Your task to perform on an android device: change the upload size in google photos Image 0: 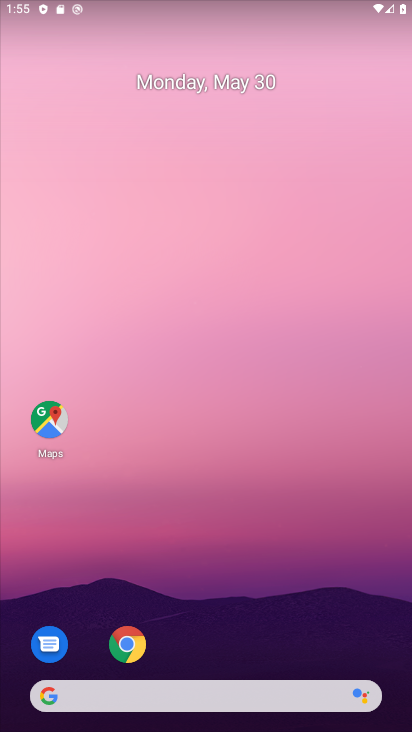
Step 0: drag from (232, 652) to (183, 228)
Your task to perform on an android device: change the upload size in google photos Image 1: 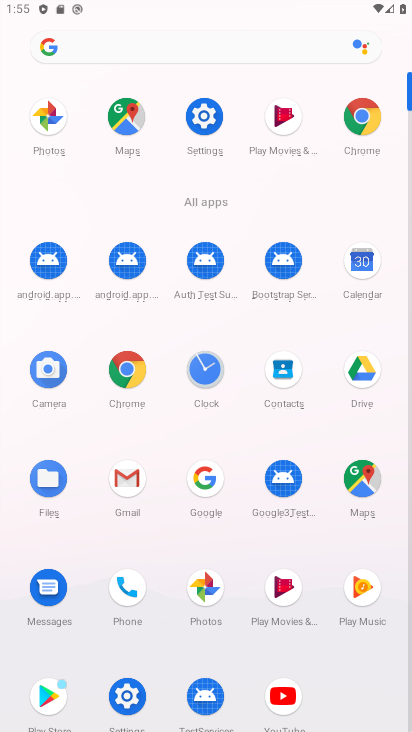
Step 1: click (202, 582)
Your task to perform on an android device: change the upload size in google photos Image 2: 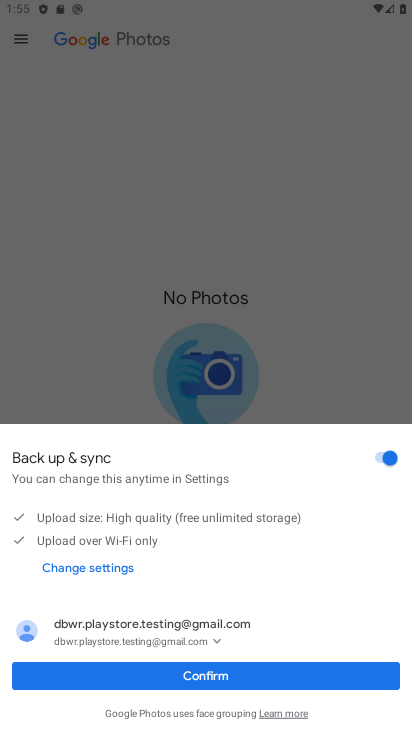
Step 2: click (195, 672)
Your task to perform on an android device: change the upload size in google photos Image 3: 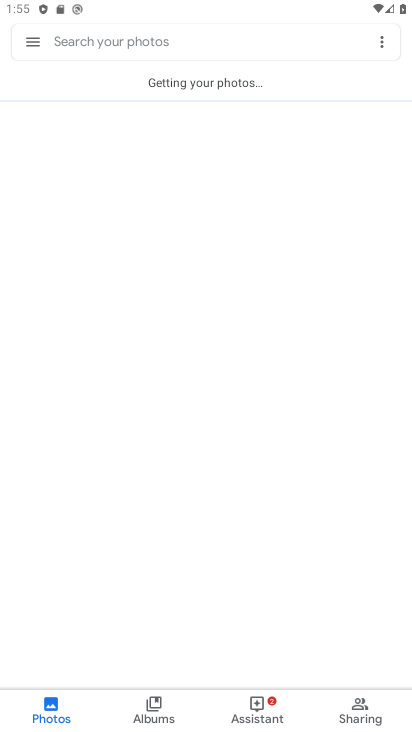
Step 3: click (32, 43)
Your task to perform on an android device: change the upload size in google photos Image 4: 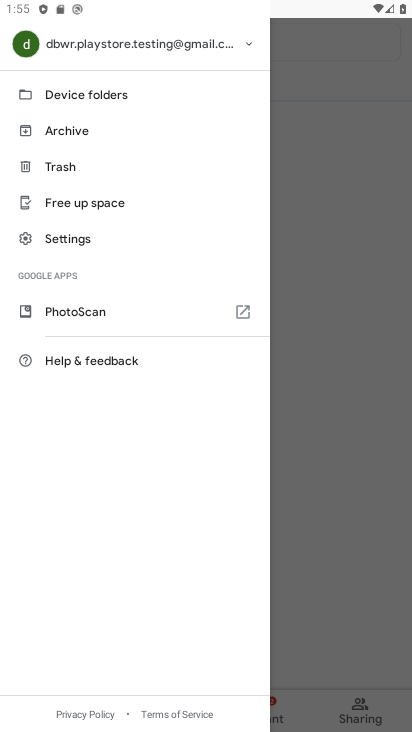
Step 4: click (89, 42)
Your task to perform on an android device: change the upload size in google photos Image 5: 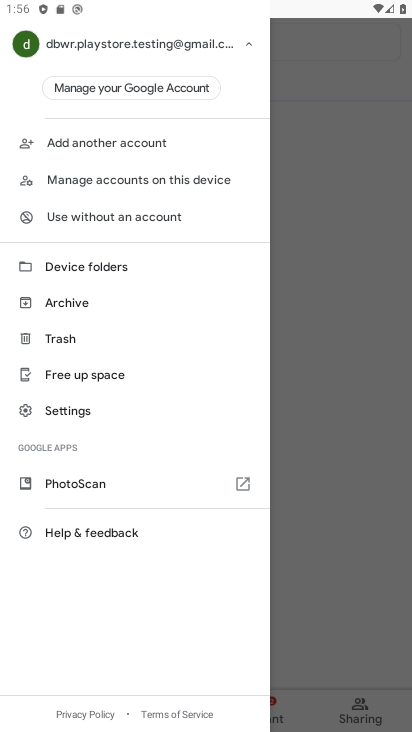
Step 5: click (89, 42)
Your task to perform on an android device: change the upload size in google photos Image 6: 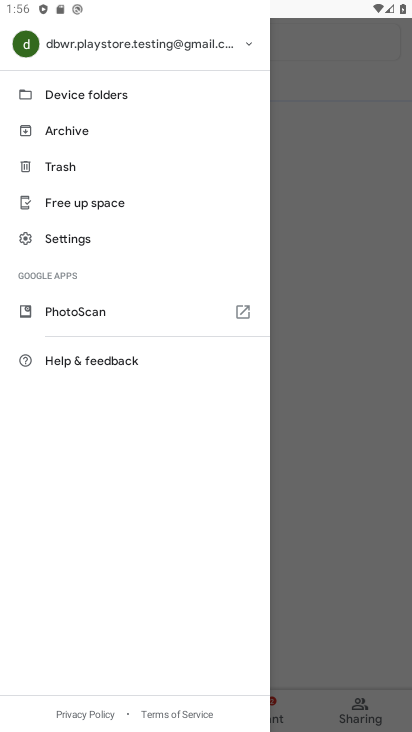
Step 6: click (89, 42)
Your task to perform on an android device: change the upload size in google photos Image 7: 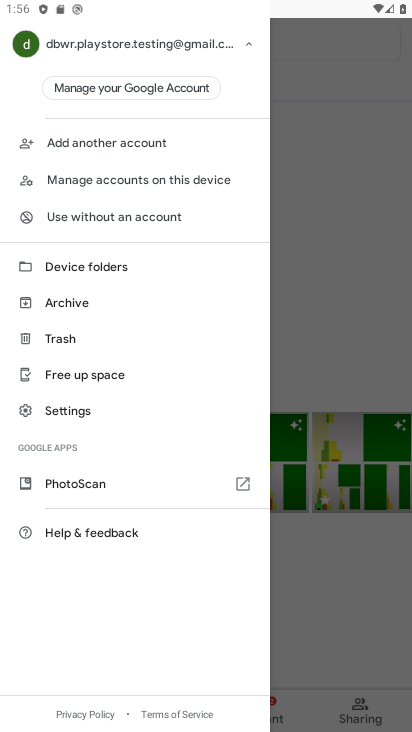
Step 7: click (65, 412)
Your task to perform on an android device: change the upload size in google photos Image 8: 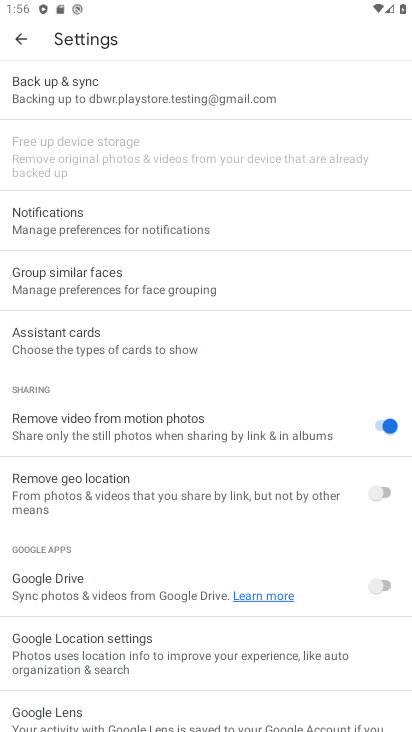
Step 8: click (175, 90)
Your task to perform on an android device: change the upload size in google photos Image 9: 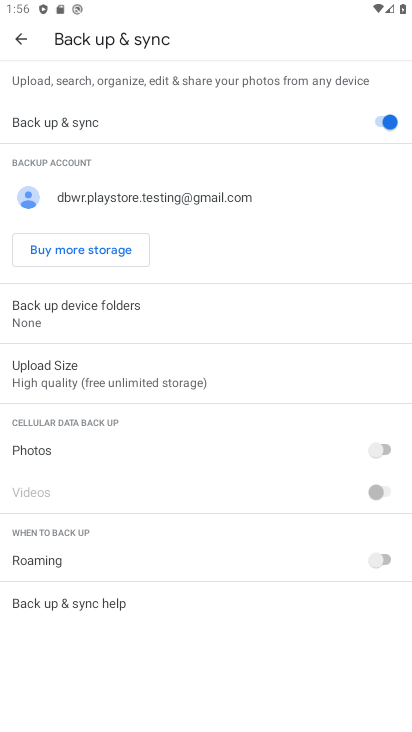
Step 9: click (91, 379)
Your task to perform on an android device: change the upload size in google photos Image 10: 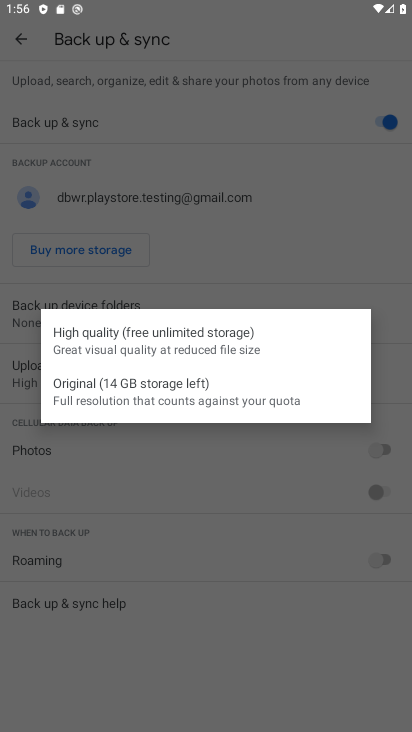
Step 10: click (233, 346)
Your task to perform on an android device: change the upload size in google photos Image 11: 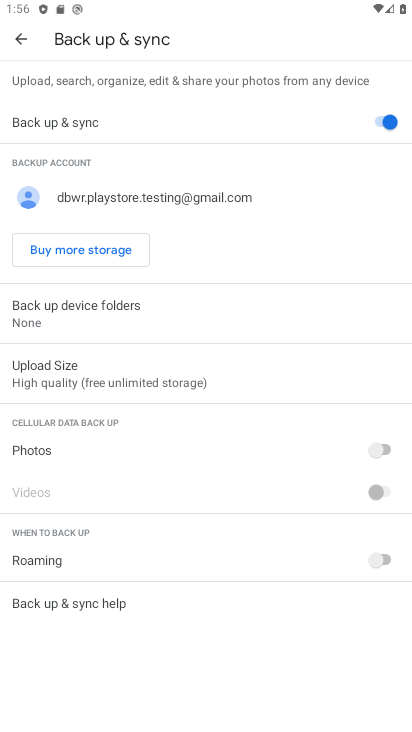
Step 11: task complete